Your task to perform on an android device: turn on bluetooth scan Image 0: 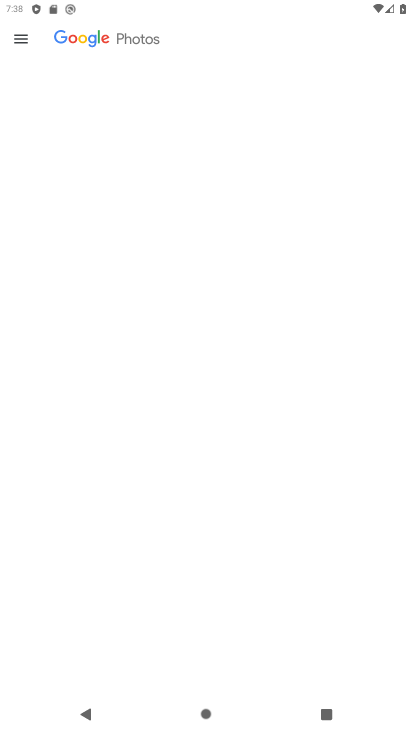
Step 0: press home button
Your task to perform on an android device: turn on bluetooth scan Image 1: 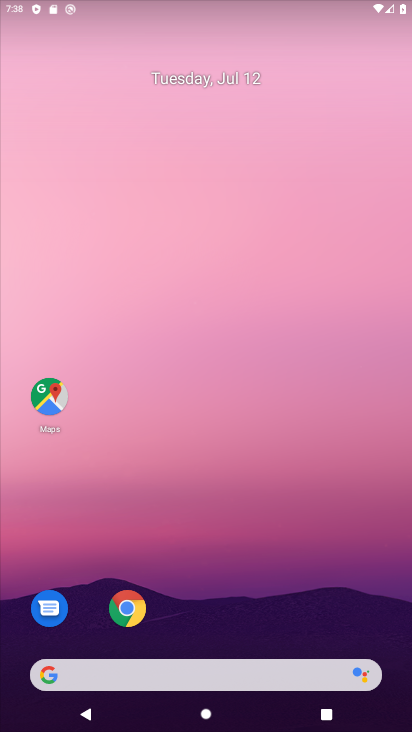
Step 1: drag from (268, 658) to (221, 142)
Your task to perform on an android device: turn on bluetooth scan Image 2: 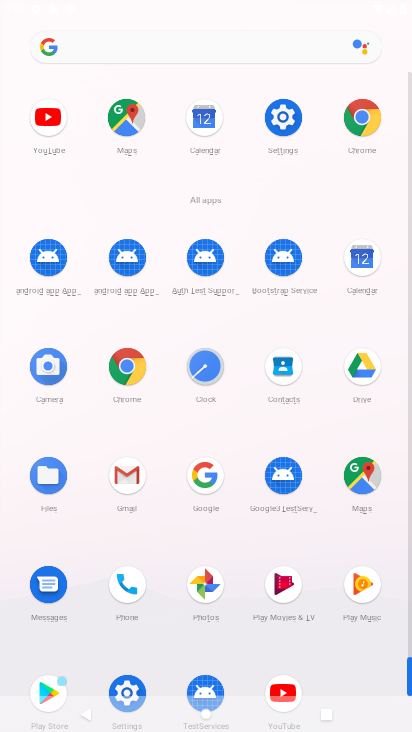
Step 2: click (280, 111)
Your task to perform on an android device: turn on bluetooth scan Image 3: 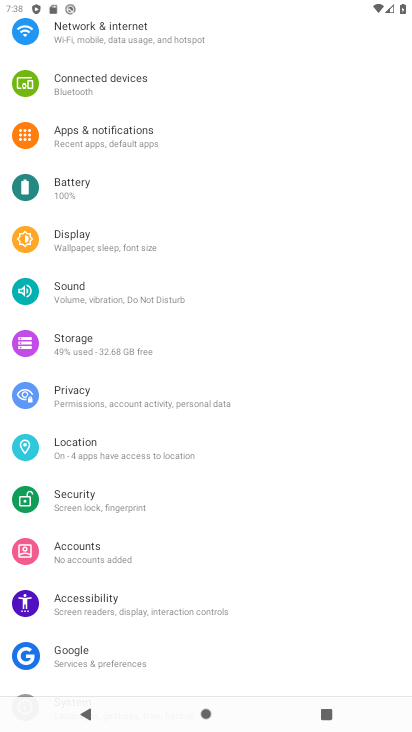
Step 3: drag from (195, 78) to (177, 725)
Your task to perform on an android device: turn on bluetooth scan Image 4: 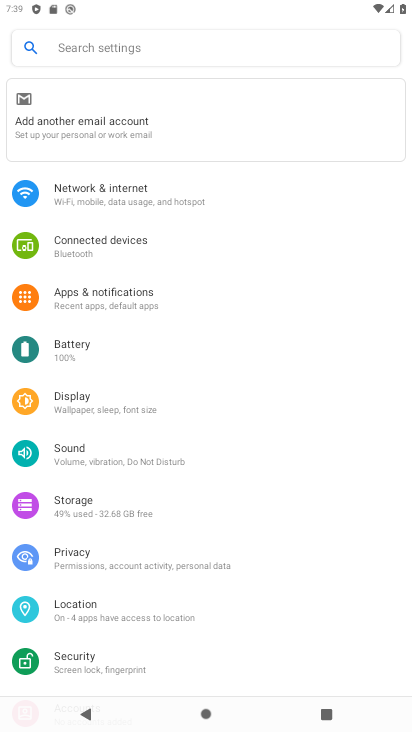
Step 4: click (234, 37)
Your task to perform on an android device: turn on bluetooth scan Image 5: 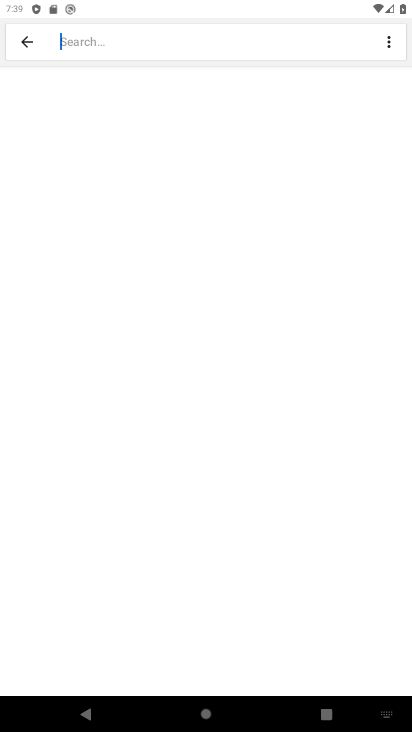
Step 5: type "bluetooth "
Your task to perform on an android device: turn on bluetooth scan Image 6: 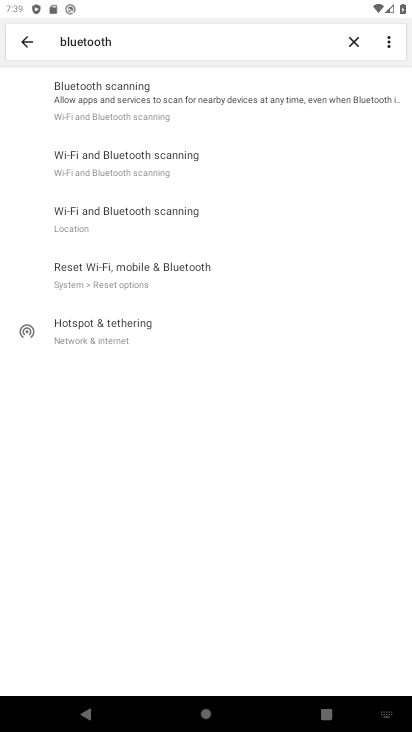
Step 6: click (156, 89)
Your task to perform on an android device: turn on bluetooth scan Image 7: 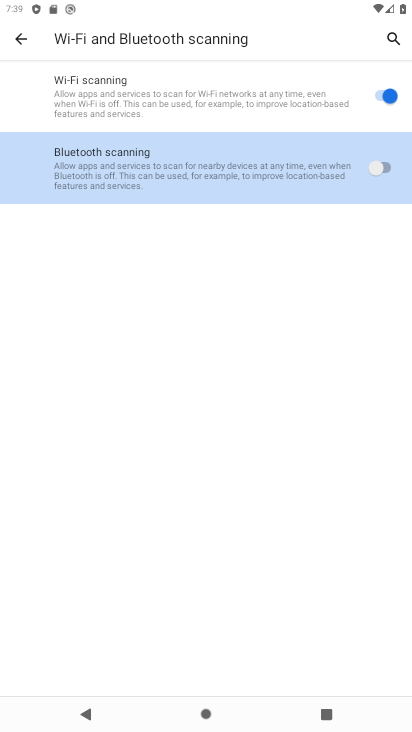
Step 7: click (386, 165)
Your task to perform on an android device: turn on bluetooth scan Image 8: 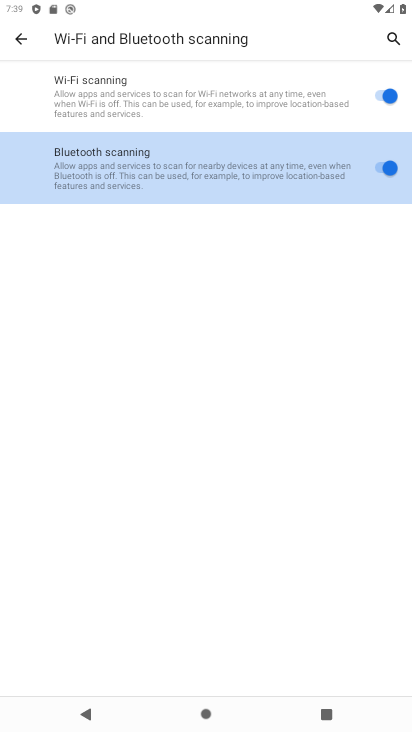
Step 8: task complete